Your task to perform on an android device: change timer sound Image 0: 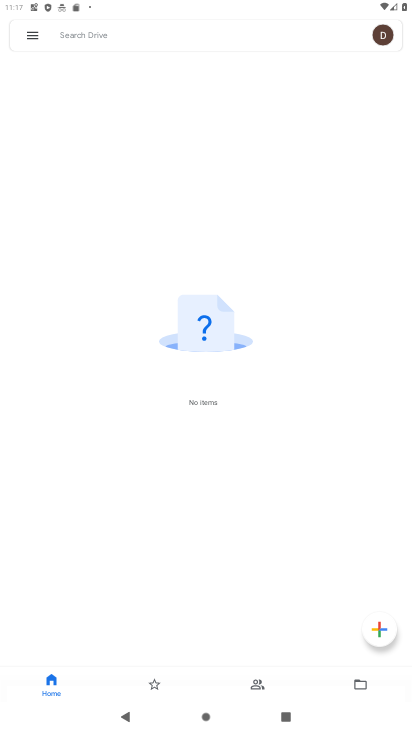
Step 0: press home button
Your task to perform on an android device: change timer sound Image 1: 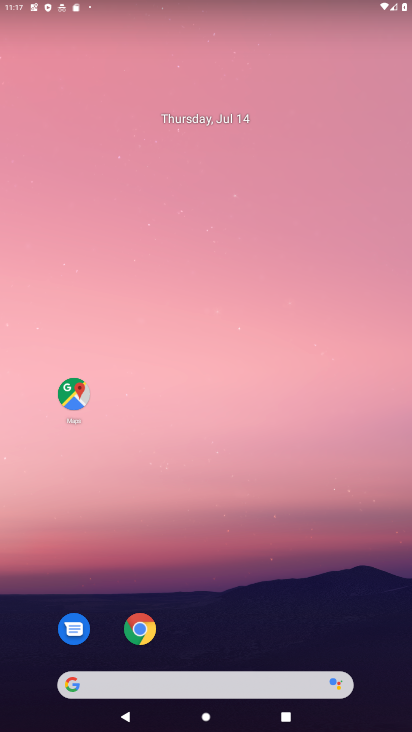
Step 1: drag from (248, 614) to (249, 106)
Your task to perform on an android device: change timer sound Image 2: 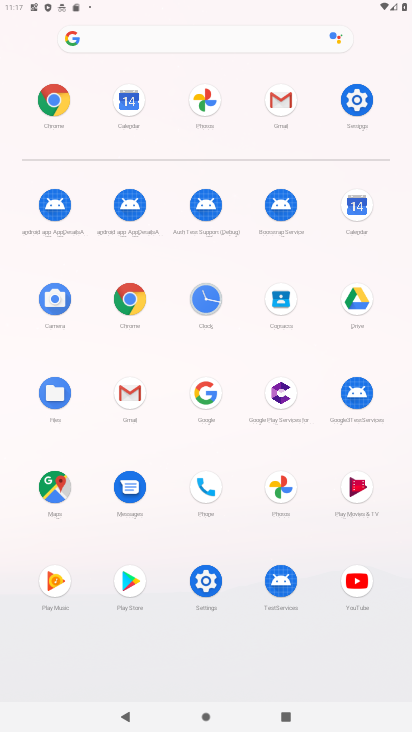
Step 2: click (208, 298)
Your task to perform on an android device: change timer sound Image 3: 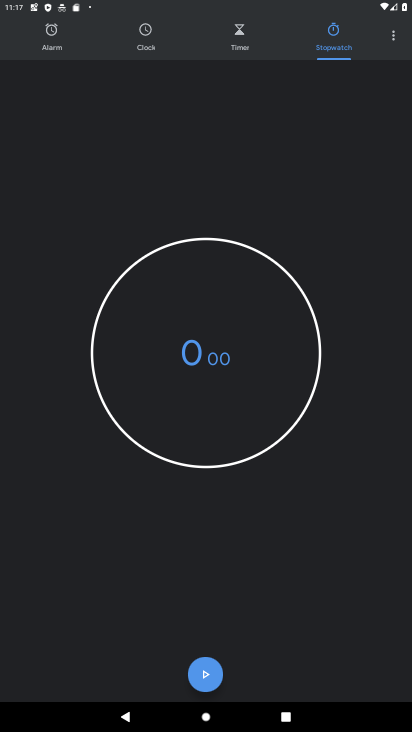
Step 3: click (394, 38)
Your task to perform on an android device: change timer sound Image 4: 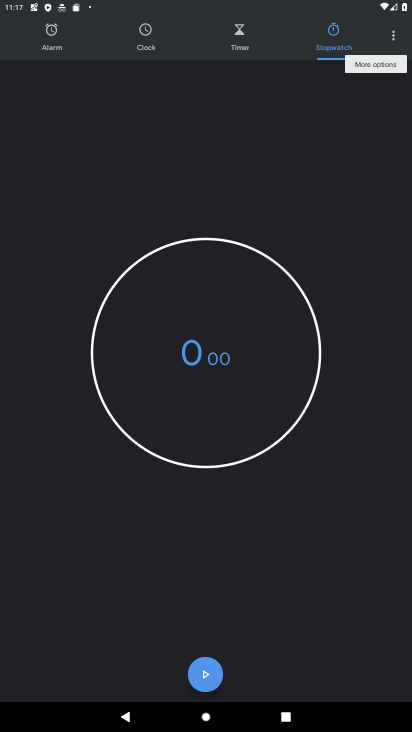
Step 4: click (392, 39)
Your task to perform on an android device: change timer sound Image 5: 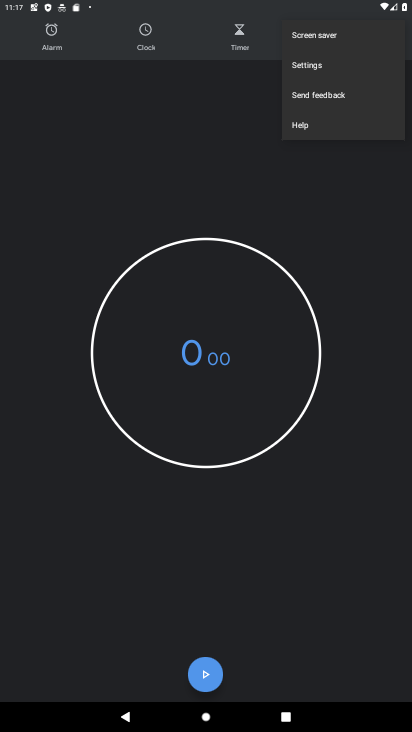
Step 5: click (312, 69)
Your task to perform on an android device: change timer sound Image 6: 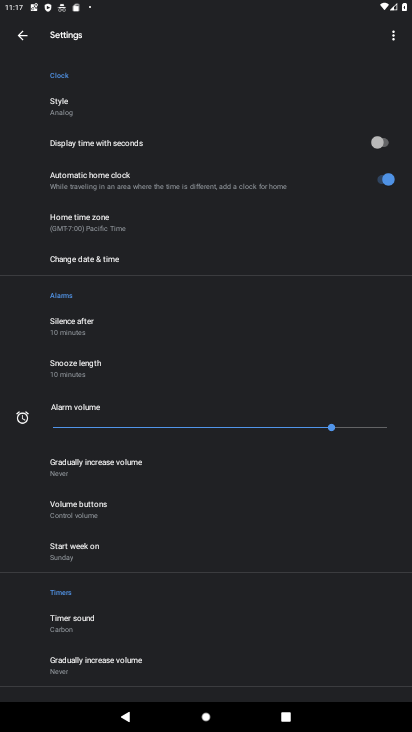
Step 6: click (75, 622)
Your task to perform on an android device: change timer sound Image 7: 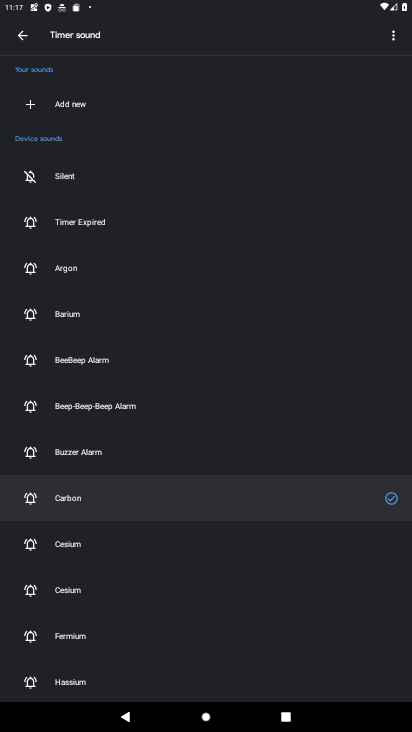
Step 7: click (53, 591)
Your task to perform on an android device: change timer sound Image 8: 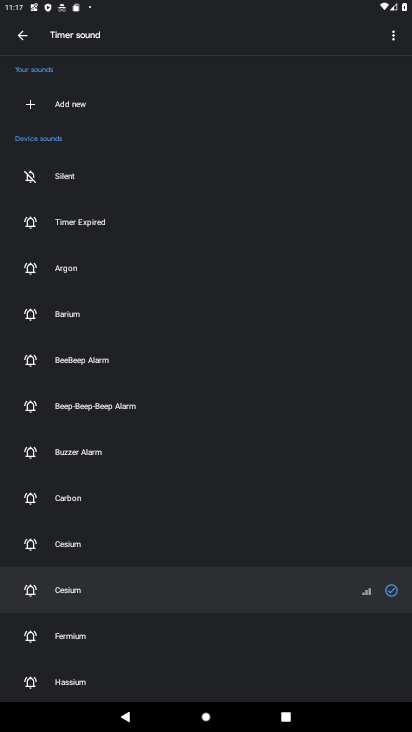
Step 8: task complete